Your task to perform on an android device: turn off airplane mode Image 0: 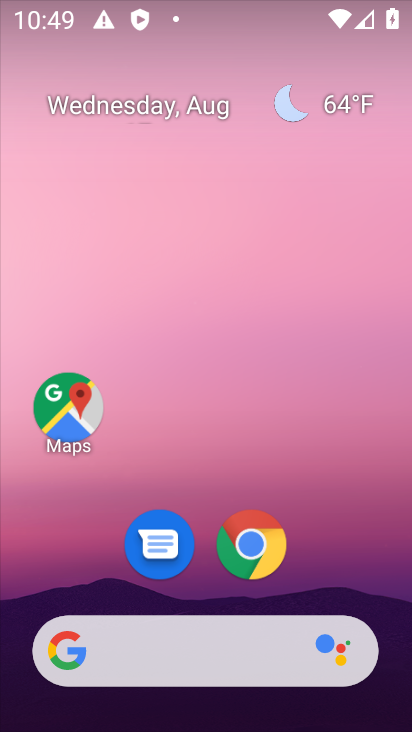
Step 0: drag from (262, 455) to (220, 37)
Your task to perform on an android device: turn off airplane mode Image 1: 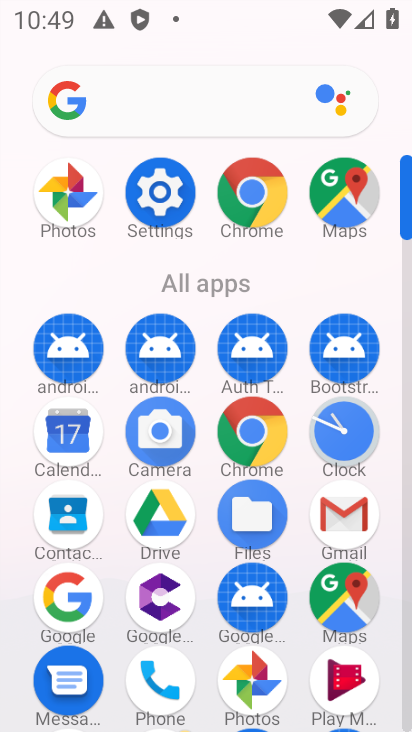
Step 1: task complete